Your task to perform on an android device: Go to Yahoo.com Image 0: 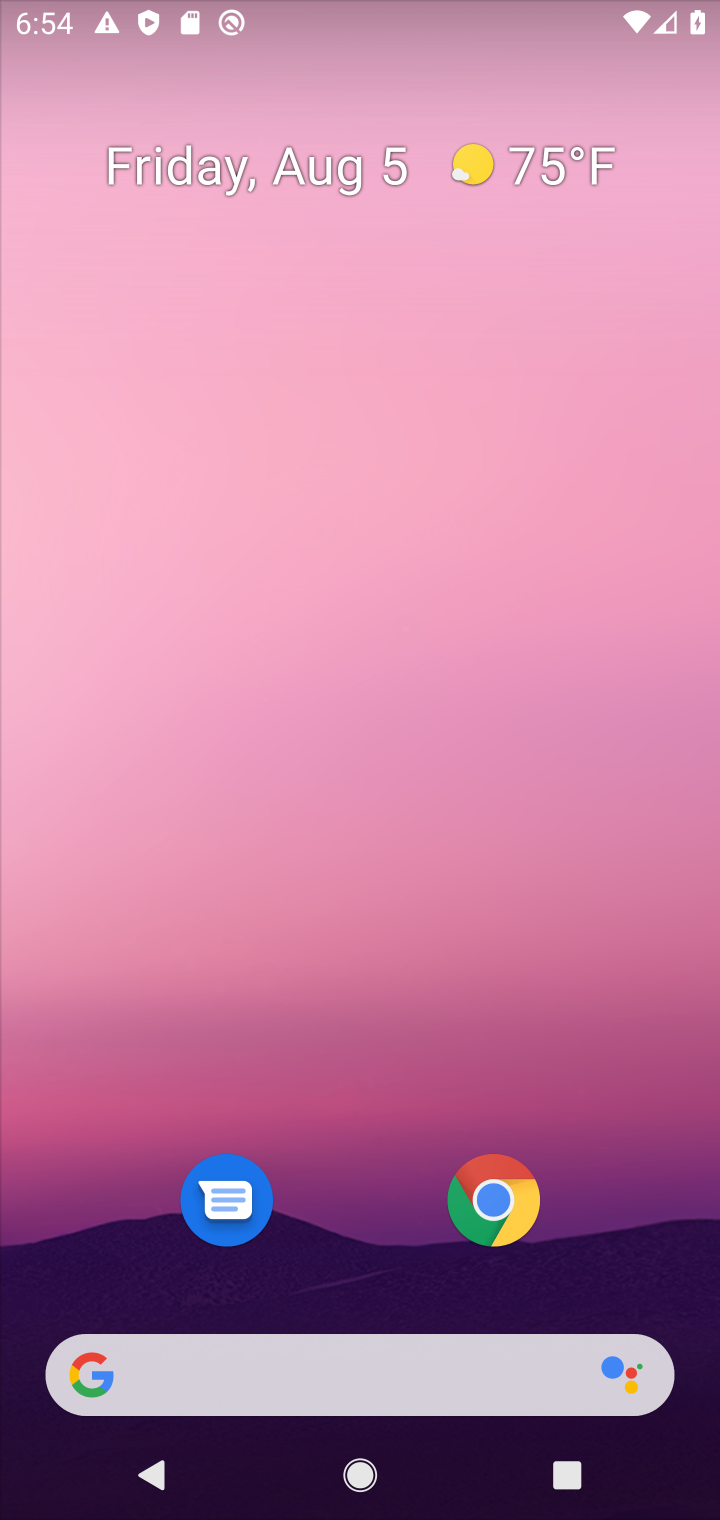
Step 0: press home button
Your task to perform on an android device: Go to Yahoo.com Image 1: 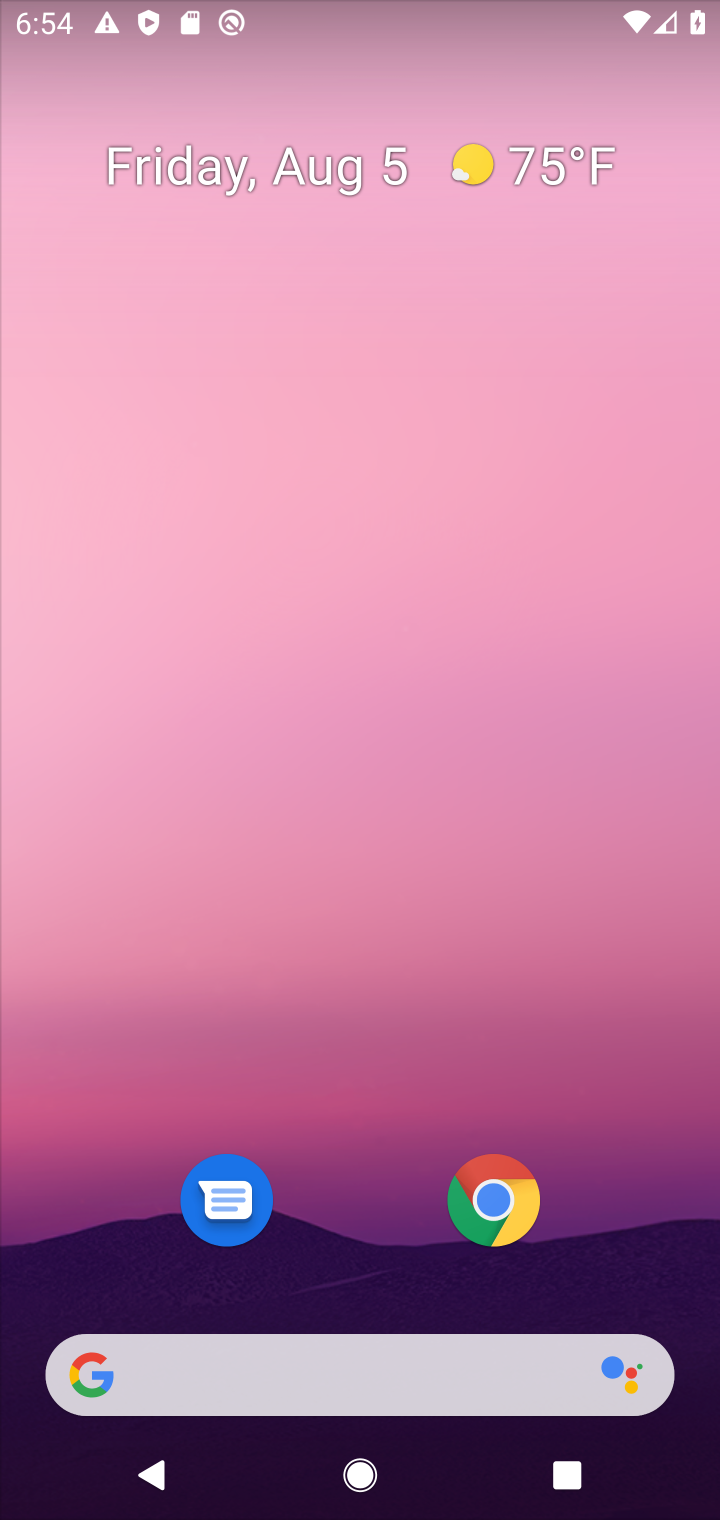
Step 1: click (503, 1195)
Your task to perform on an android device: Go to Yahoo.com Image 2: 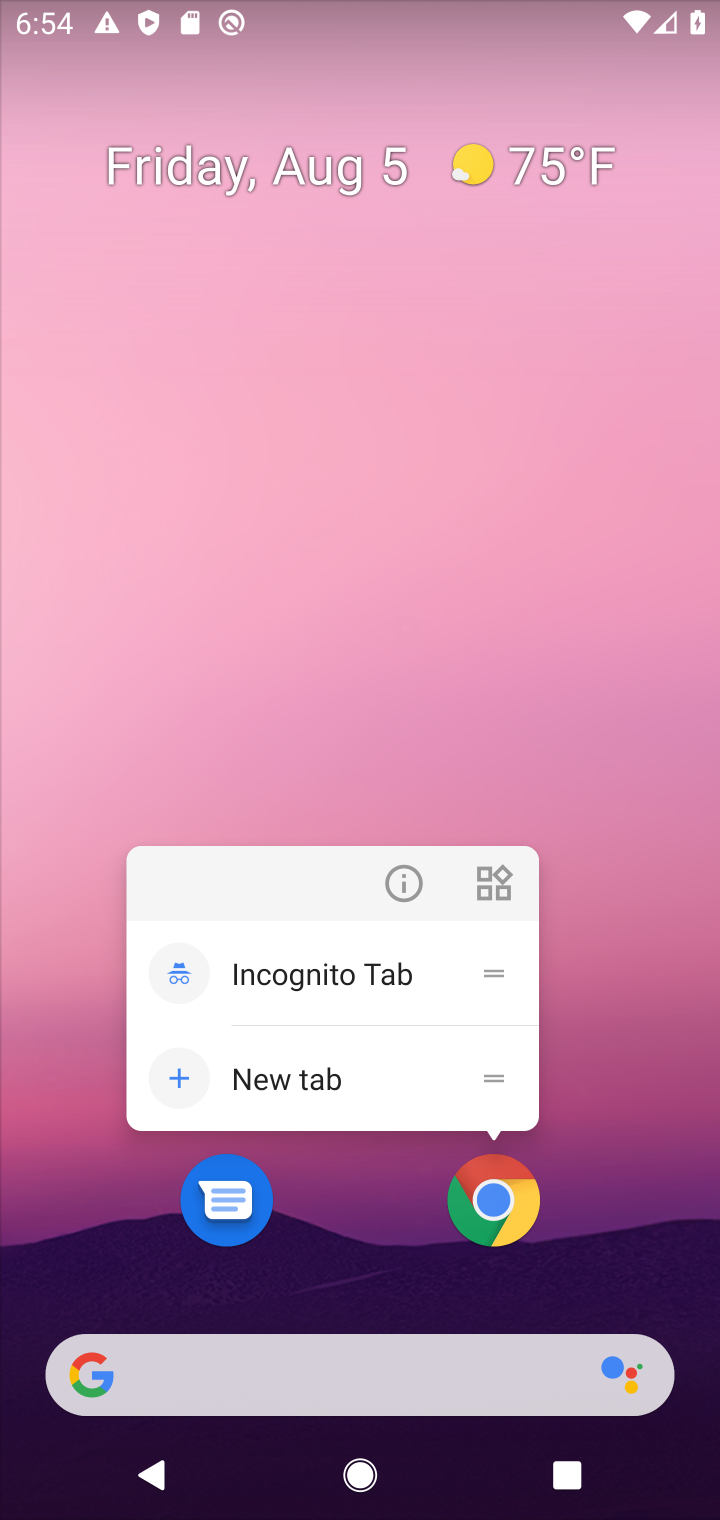
Step 2: click (483, 1191)
Your task to perform on an android device: Go to Yahoo.com Image 3: 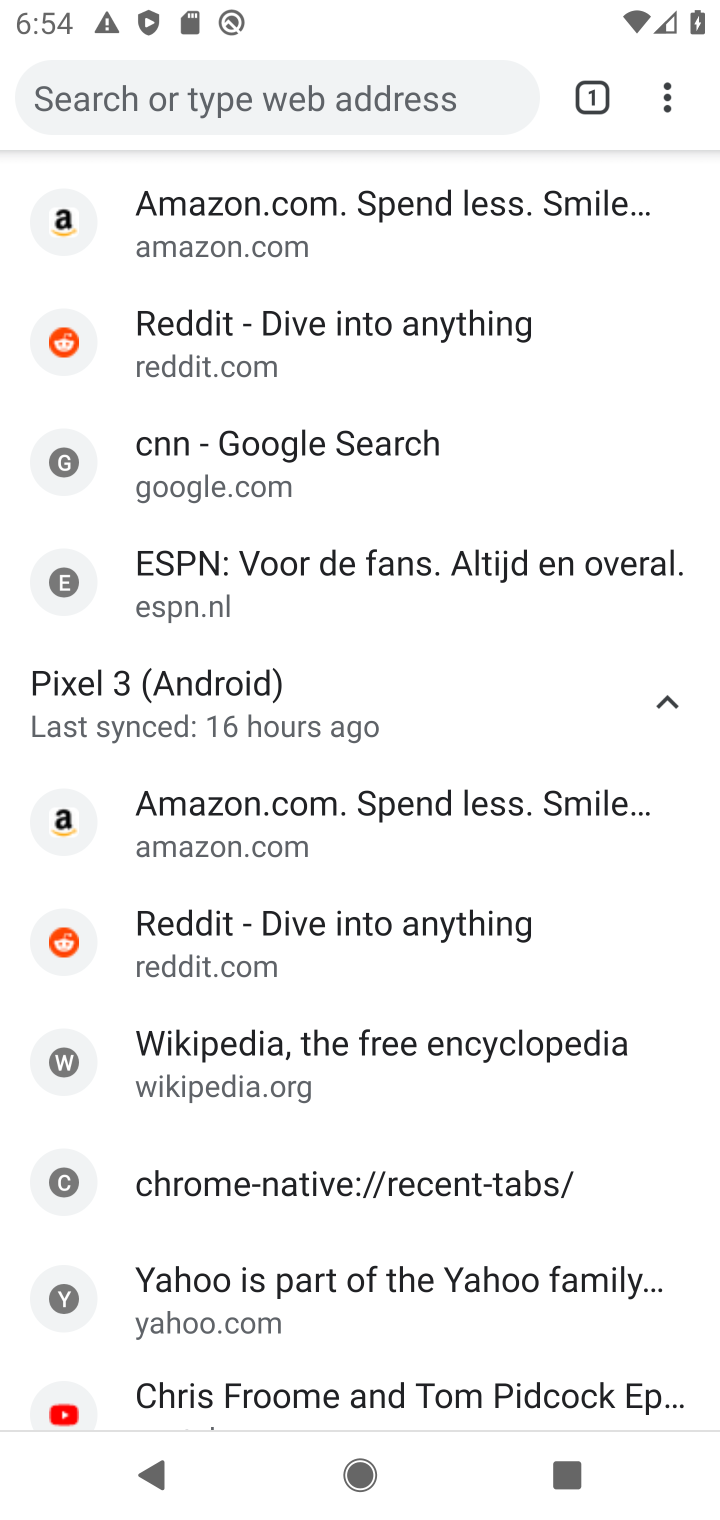
Step 3: drag from (570, 1261) to (398, 642)
Your task to perform on an android device: Go to Yahoo.com Image 4: 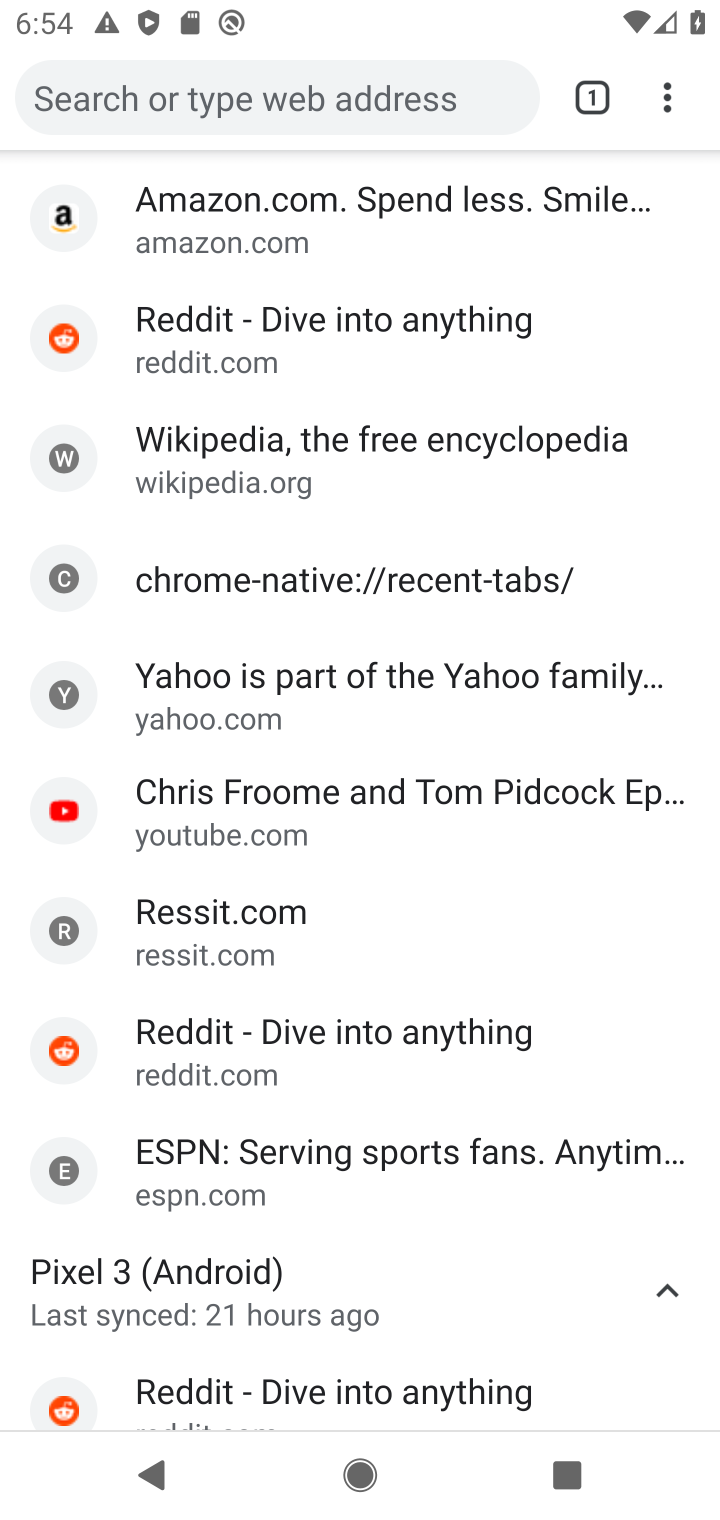
Step 4: click (252, 93)
Your task to perform on an android device: Go to Yahoo.com Image 5: 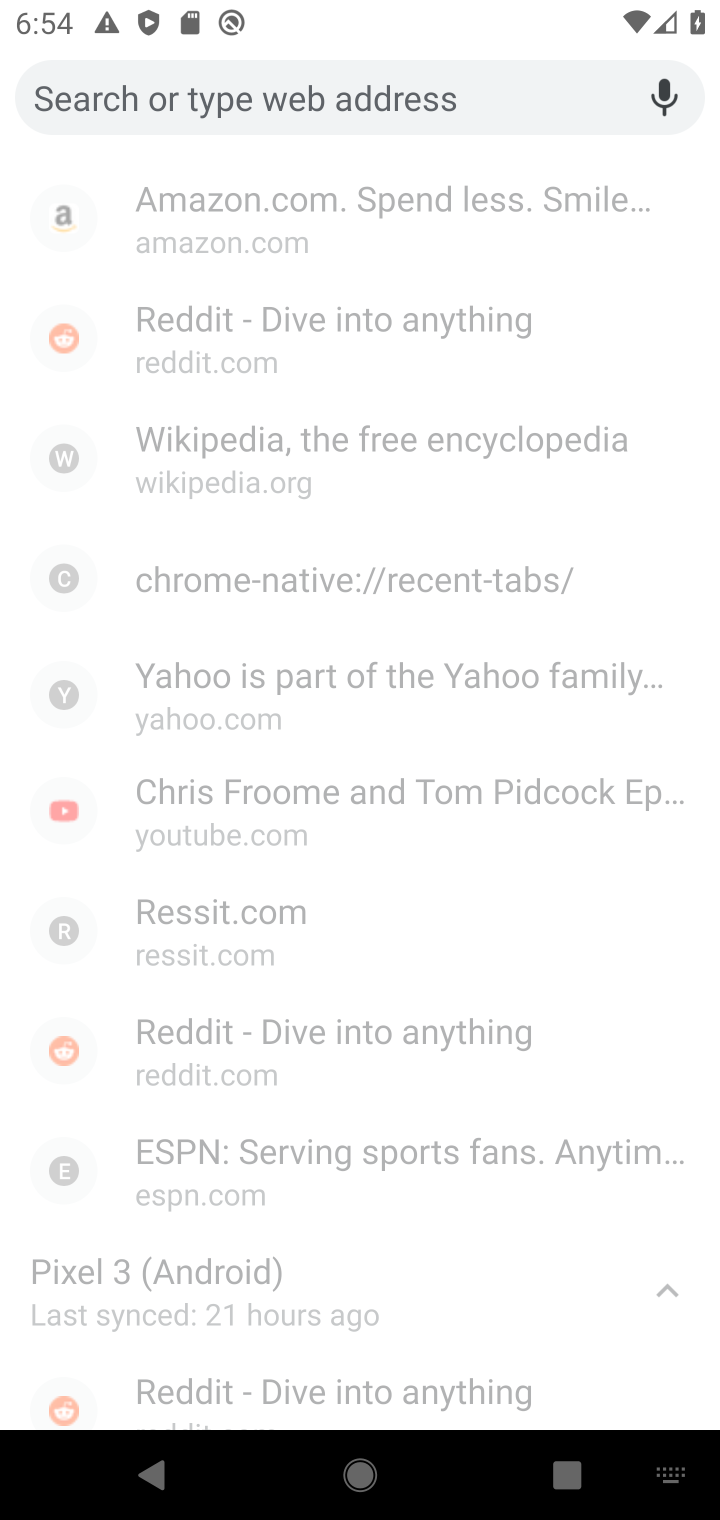
Step 5: type "yahoo.com"
Your task to perform on an android device: Go to Yahoo.com Image 6: 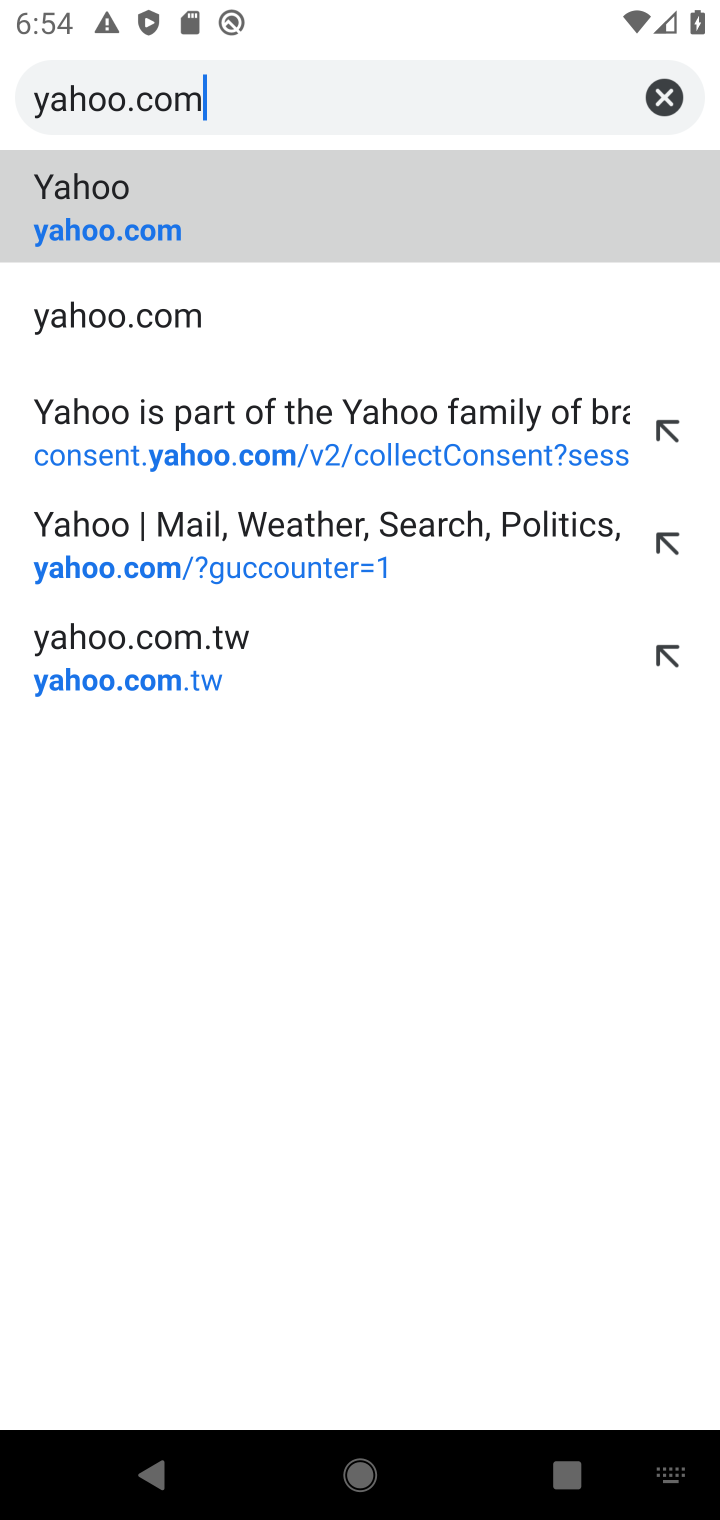
Step 6: click (470, 174)
Your task to perform on an android device: Go to Yahoo.com Image 7: 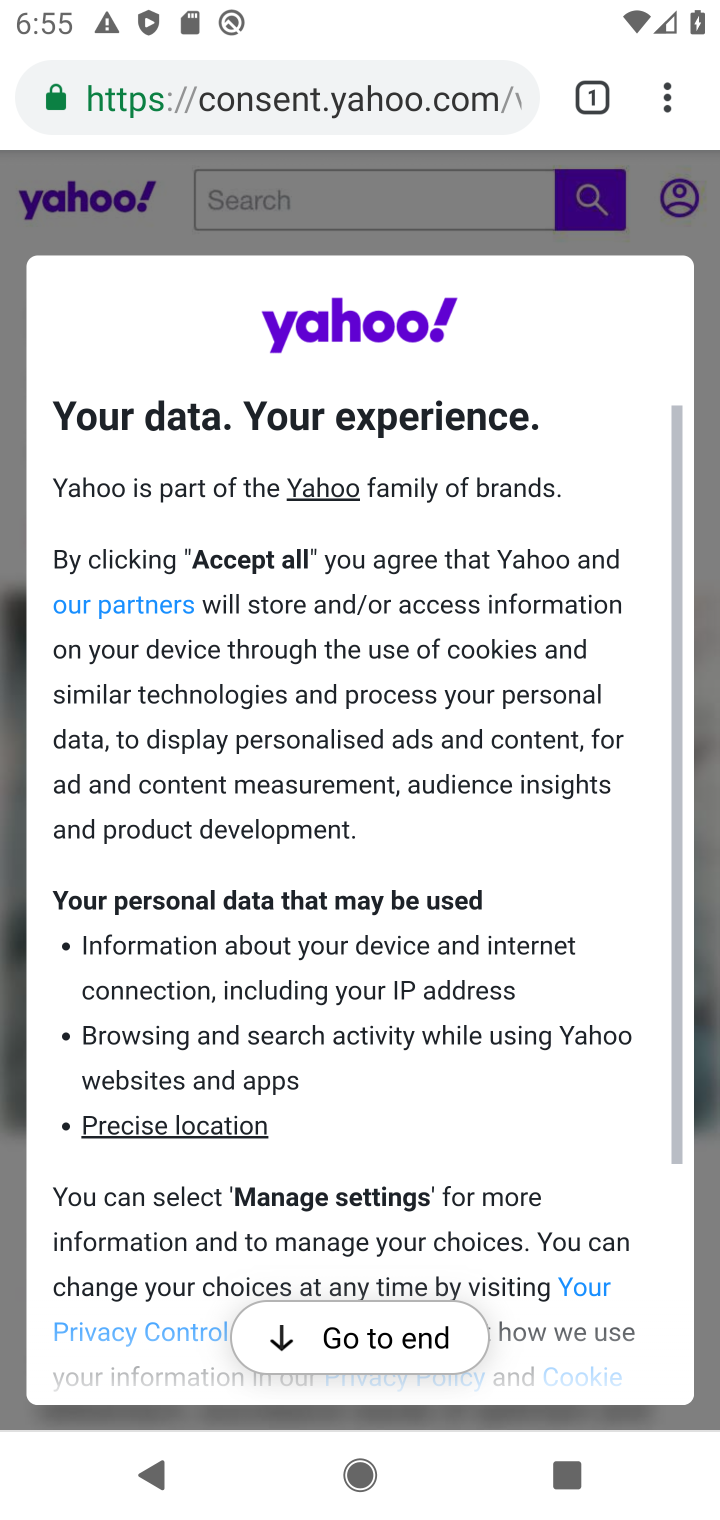
Step 7: task complete